Your task to perform on an android device: change text size in settings app Image 0: 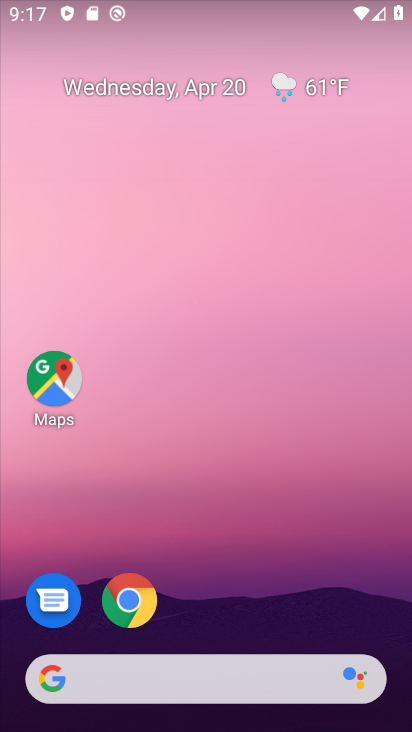
Step 0: drag from (208, 626) to (206, 0)
Your task to perform on an android device: change text size in settings app Image 1: 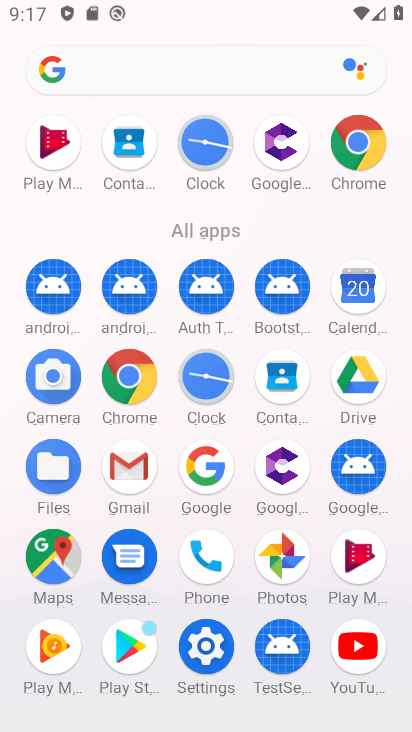
Step 1: click (211, 645)
Your task to perform on an android device: change text size in settings app Image 2: 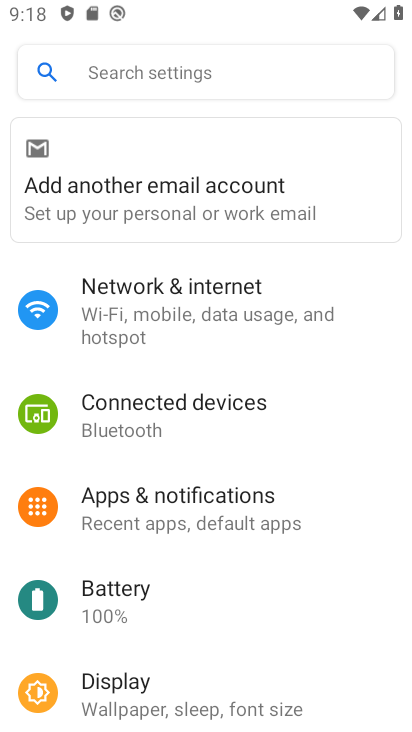
Step 2: click (173, 696)
Your task to perform on an android device: change text size in settings app Image 3: 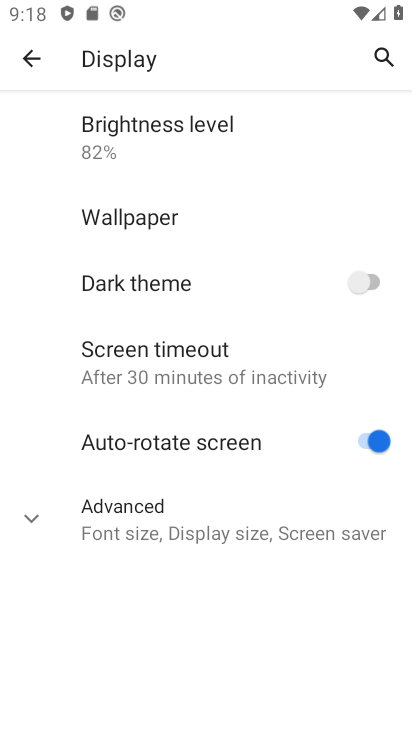
Step 3: click (168, 545)
Your task to perform on an android device: change text size in settings app Image 4: 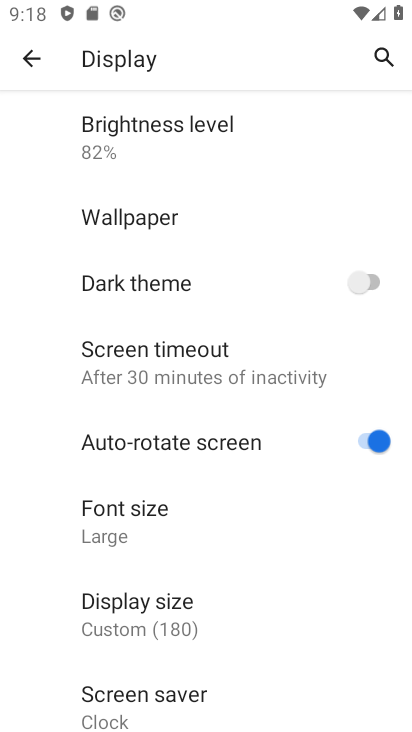
Step 4: click (168, 545)
Your task to perform on an android device: change text size in settings app Image 5: 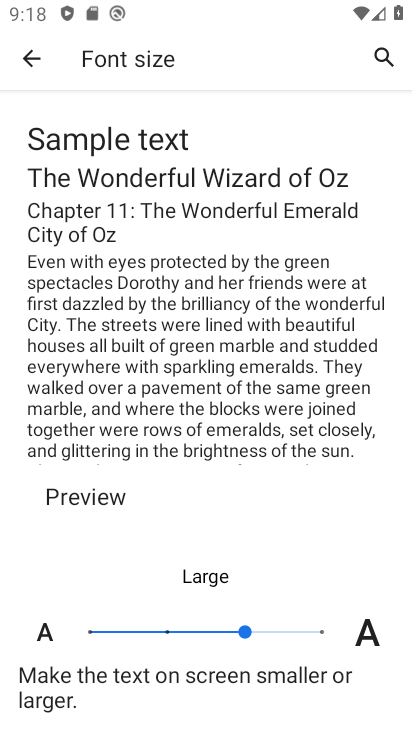
Step 5: click (175, 635)
Your task to perform on an android device: change text size in settings app Image 6: 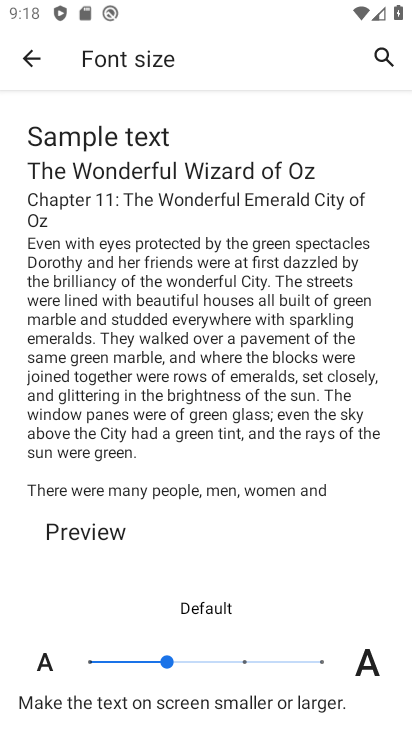
Step 6: click (92, 657)
Your task to perform on an android device: change text size in settings app Image 7: 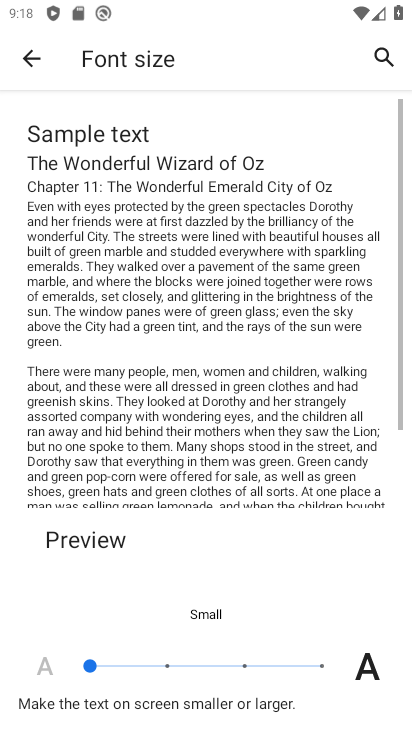
Step 7: task complete